Your task to perform on an android device: turn on sleep mode Image 0: 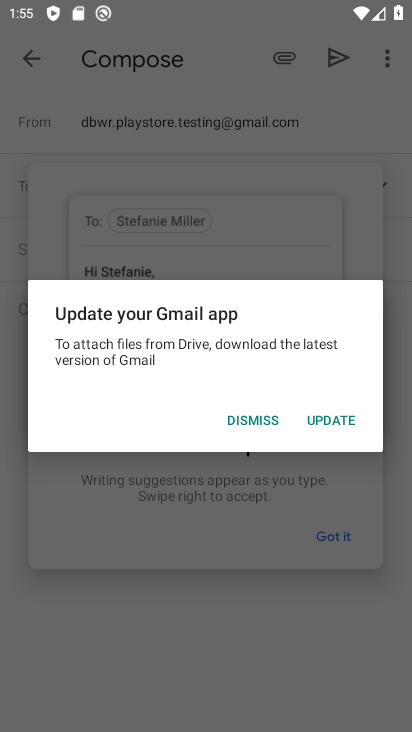
Step 0: press home button
Your task to perform on an android device: turn on sleep mode Image 1: 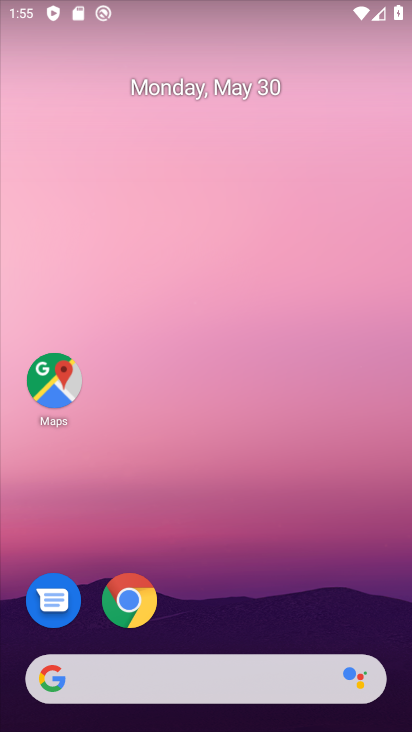
Step 1: drag from (312, 592) to (364, 55)
Your task to perform on an android device: turn on sleep mode Image 2: 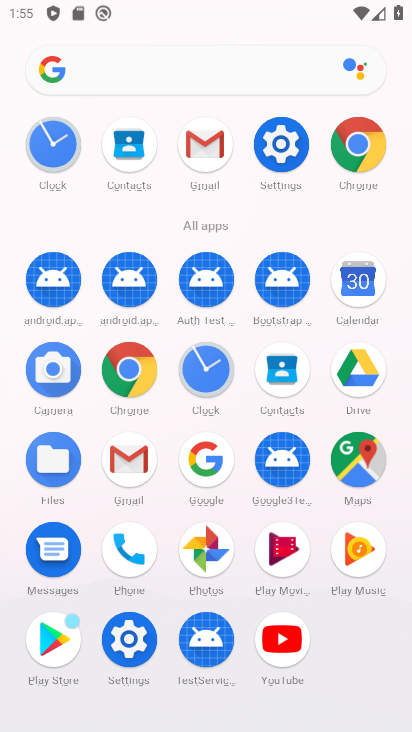
Step 2: click (290, 137)
Your task to perform on an android device: turn on sleep mode Image 3: 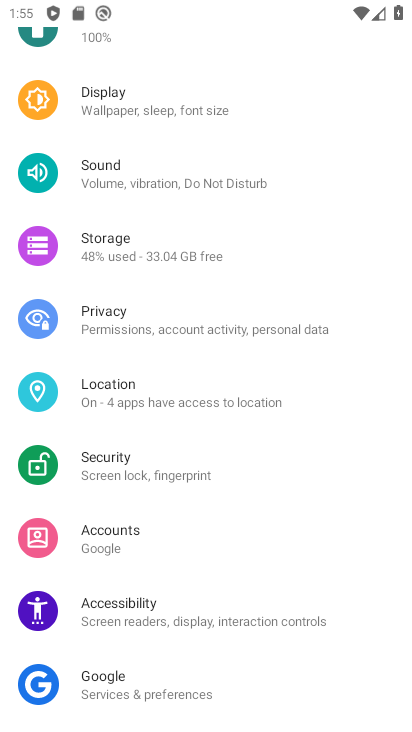
Step 3: click (200, 112)
Your task to perform on an android device: turn on sleep mode Image 4: 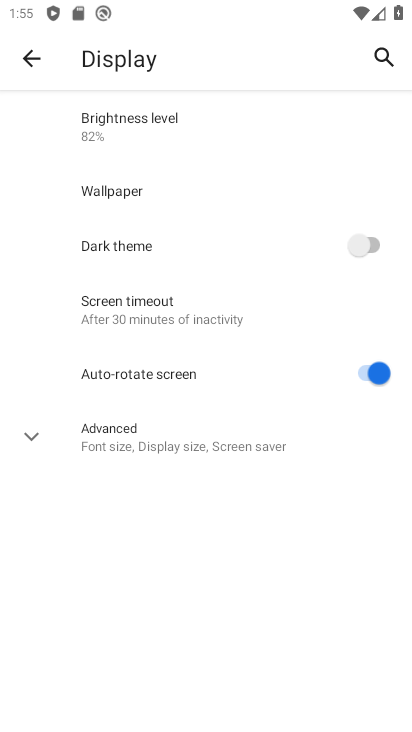
Step 4: click (185, 450)
Your task to perform on an android device: turn on sleep mode Image 5: 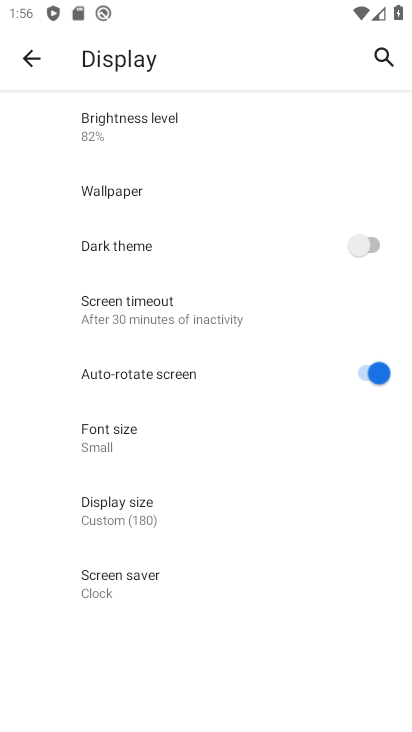
Step 5: task complete